Your task to perform on an android device: Go to Wikipedia Image 0: 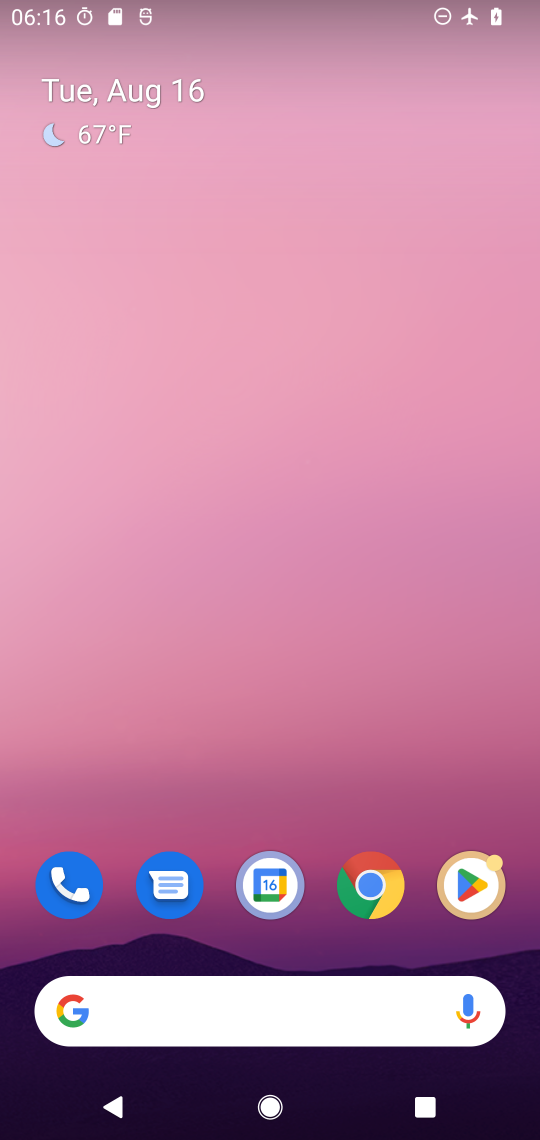
Step 0: drag from (236, 1010) to (243, 178)
Your task to perform on an android device: Go to Wikipedia Image 1: 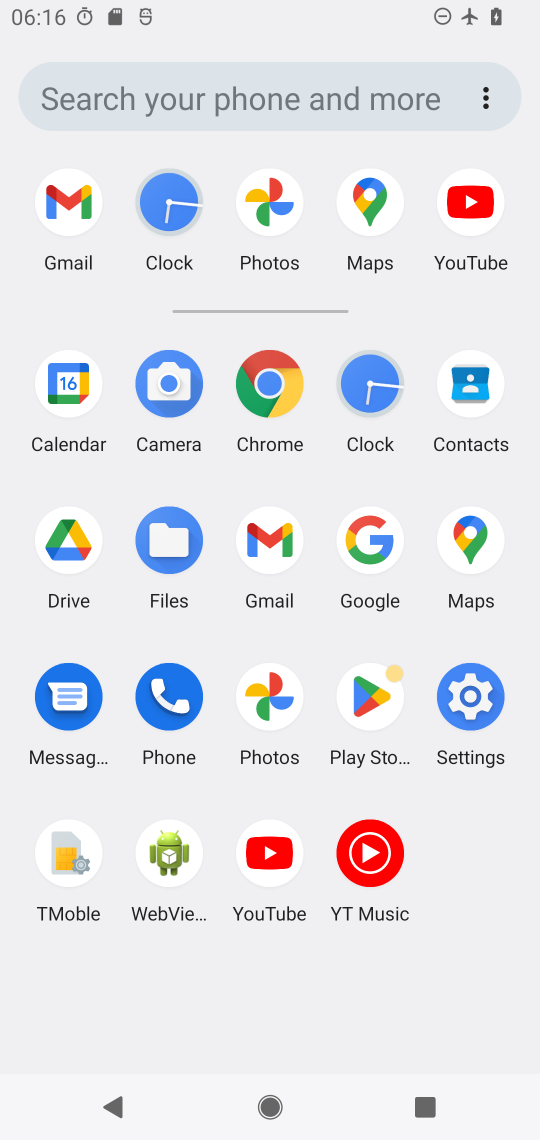
Step 1: click (253, 385)
Your task to perform on an android device: Go to Wikipedia Image 2: 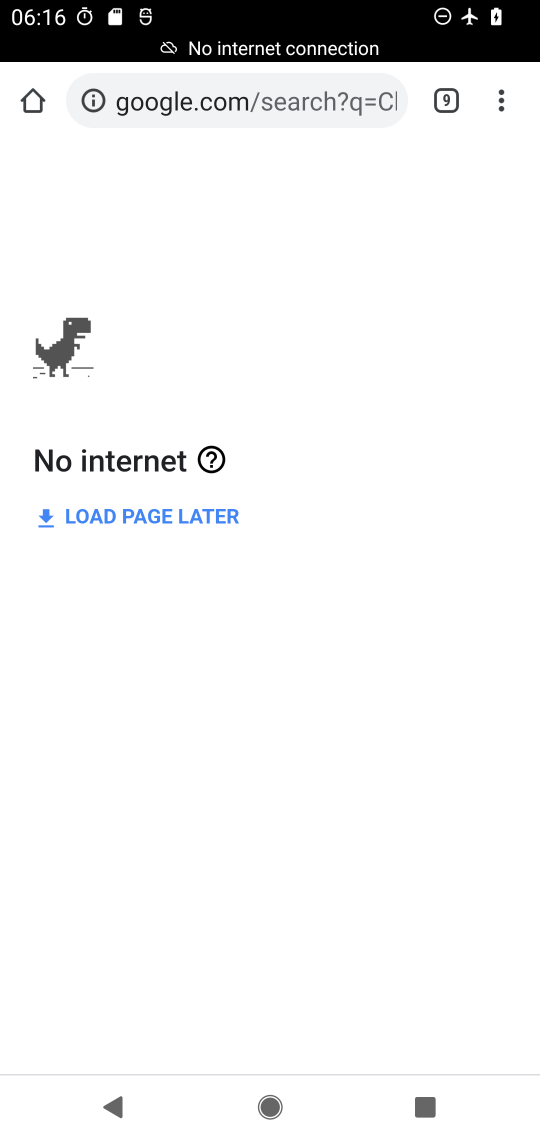
Step 2: click (504, 95)
Your task to perform on an android device: Go to Wikipedia Image 3: 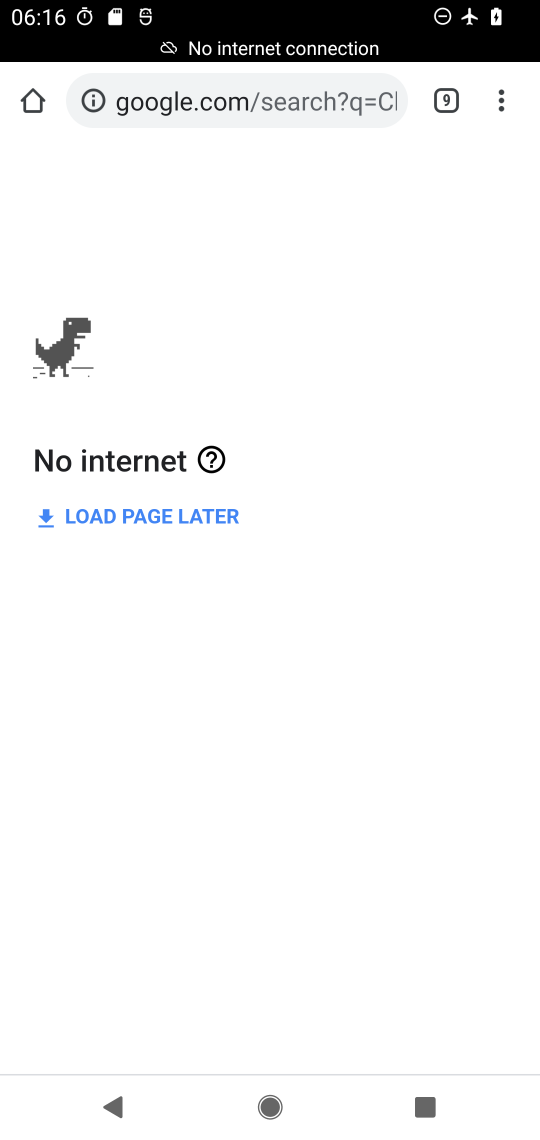
Step 3: click (516, 93)
Your task to perform on an android device: Go to Wikipedia Image 4: 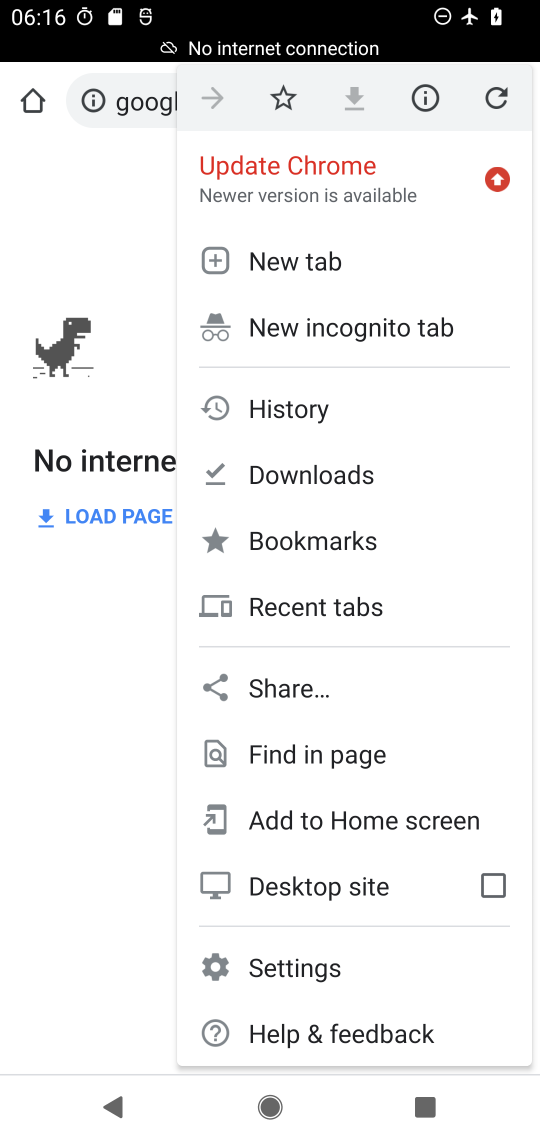
Step 4: click (326, 251)
Your task to perform on an android device: Go to Wikipedia Image 5: 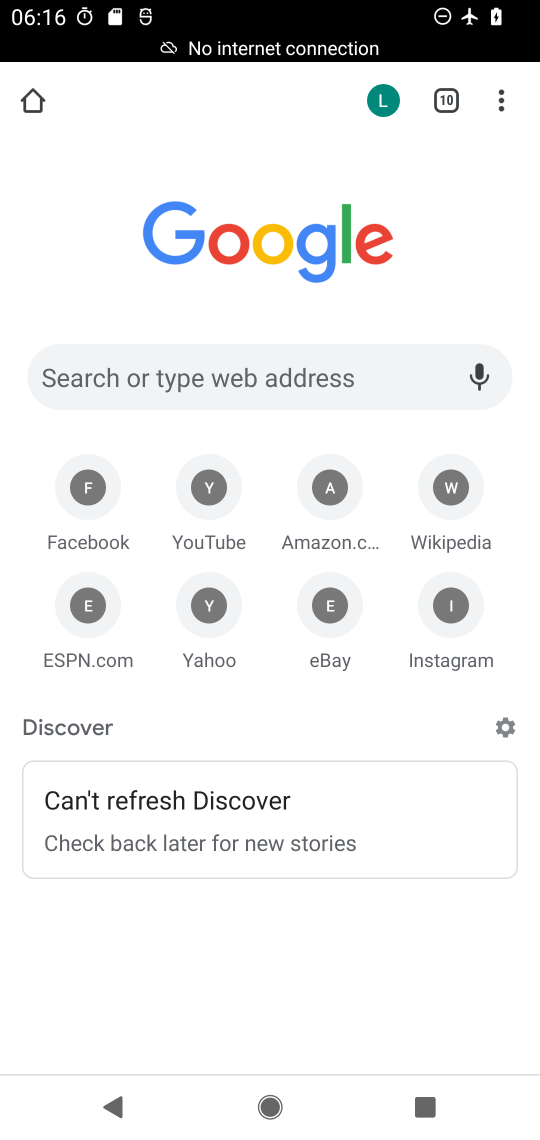
Step 5: click (426, 500)
Your task to perform on an android device: Go to Wikipedia Image 6: 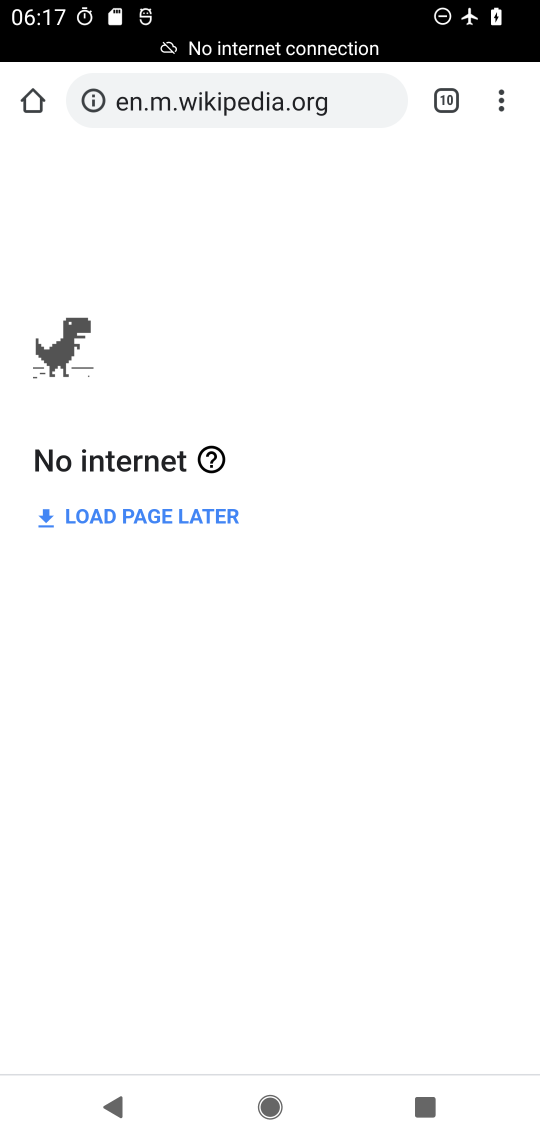
Step 6: task complete